Your task to perform on an android device: change alarm snooze length Image 0: 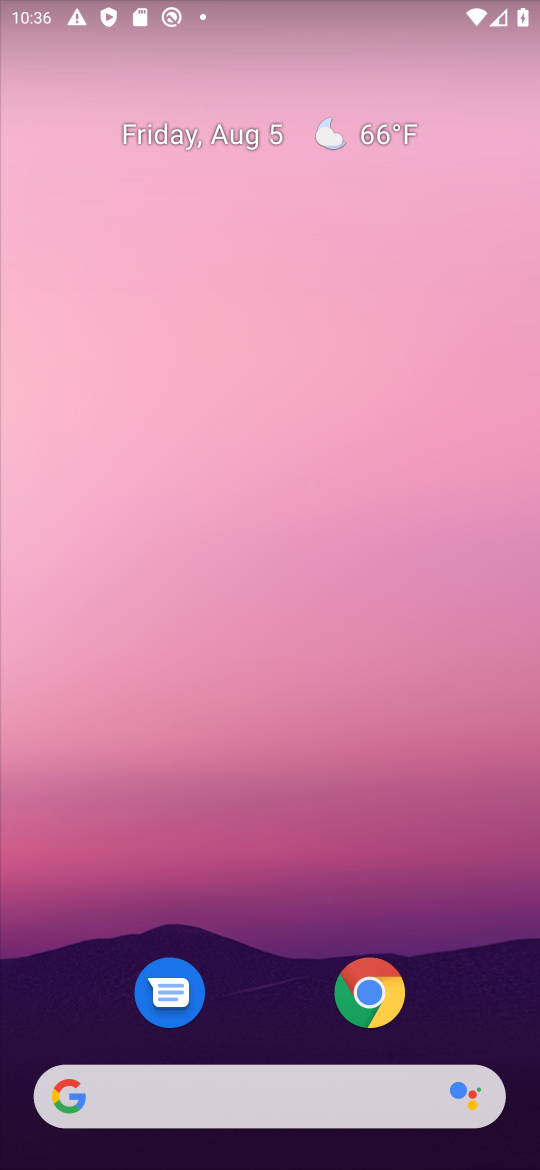
Step 0: drag from (280, 1021) to (354, 252)
Your task to perform on an android device: change alarm snooze length Image 1: 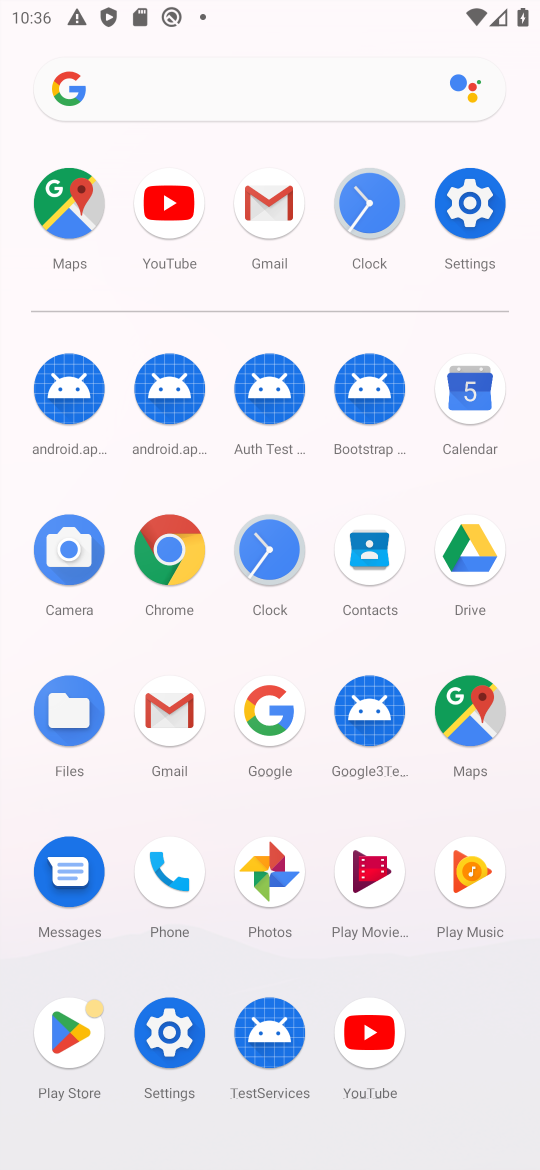
Step 1: click (476, 228)
Your task to perform on an android device: change alarm snooze length Image 2: 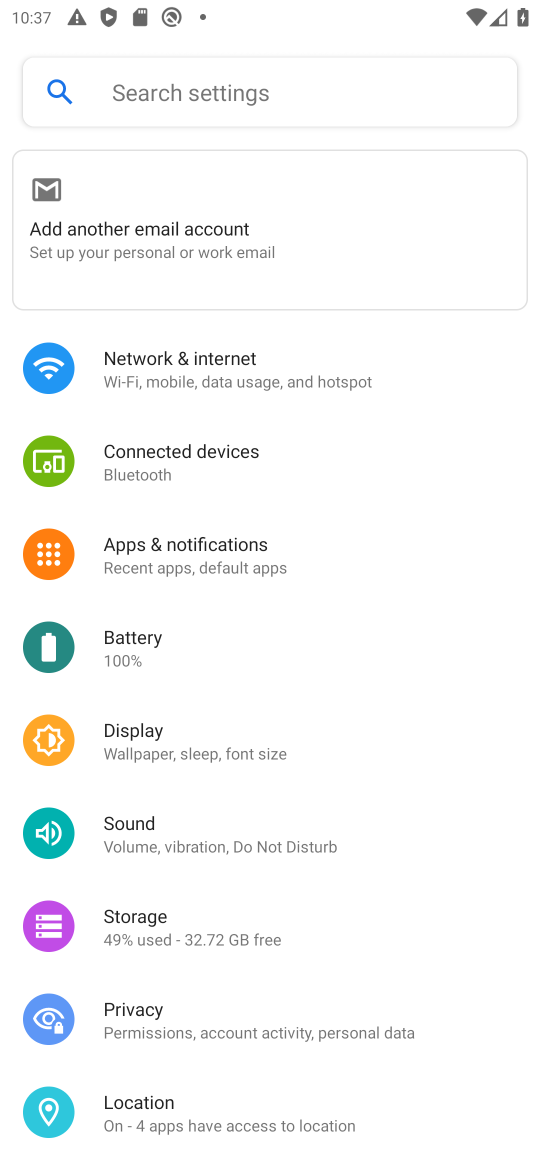
Step 2: press home button
Your task to perform on an android device: change alarm snooze length Image 3: 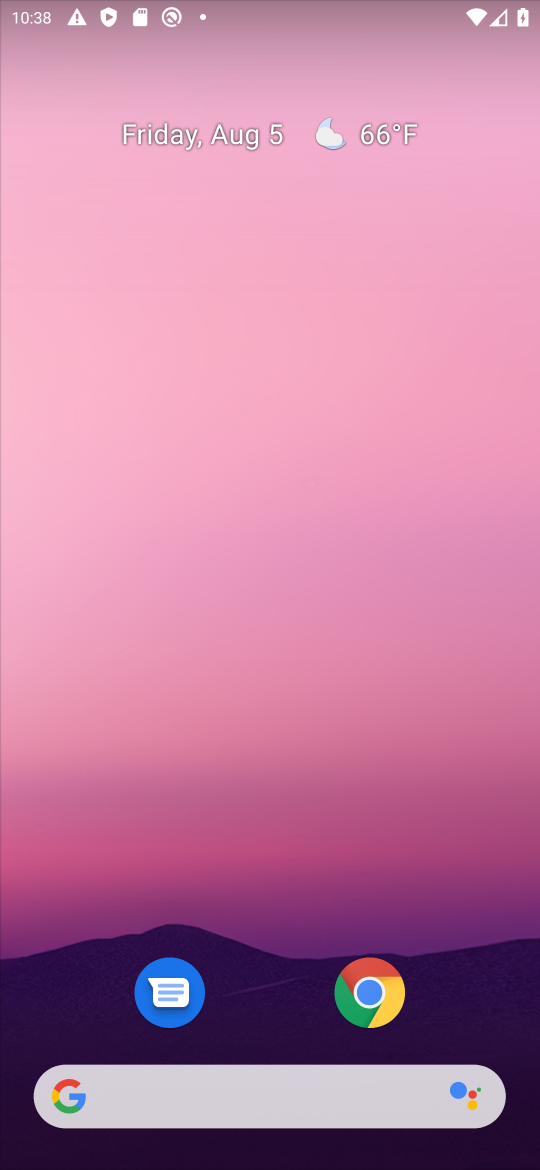
Step 3: drag from (266, 979) to (265, 263)
Your task to perform on an android device: change alarm snooze length Image 4: 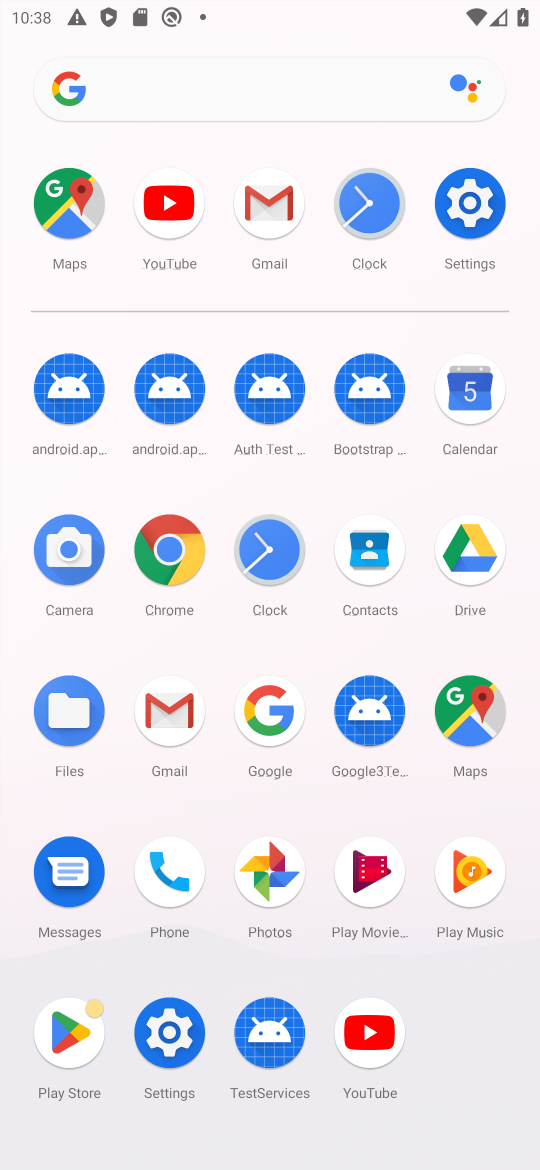
Step 4: click (378, 231)
Your task to perform on an android device: change alarm snooze length Image 5: 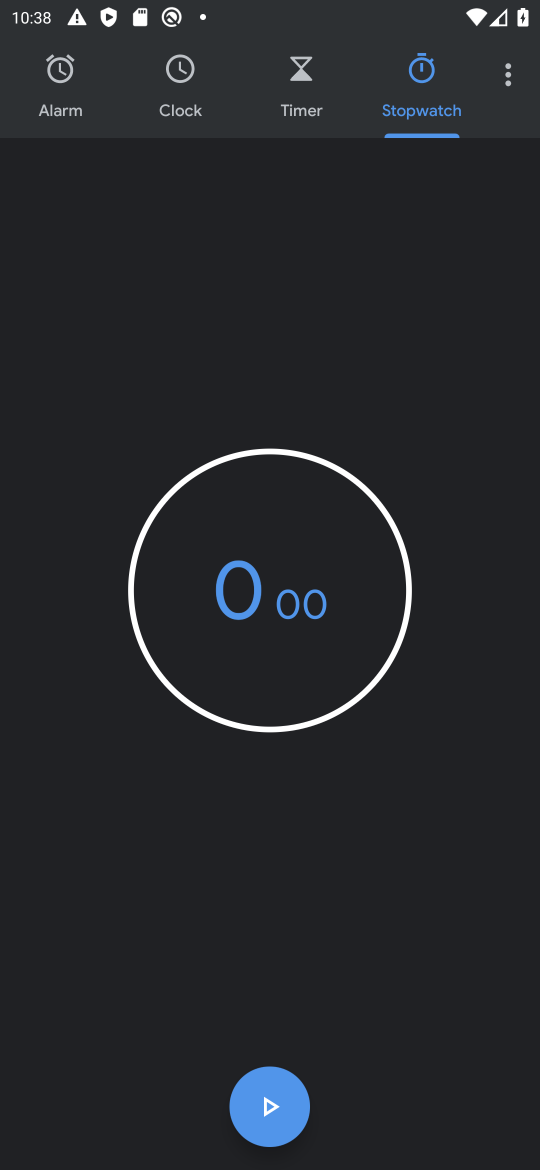
Step 5: click (520, 73)
Your task to perform on an android device: change alarm snooze length Image 6: 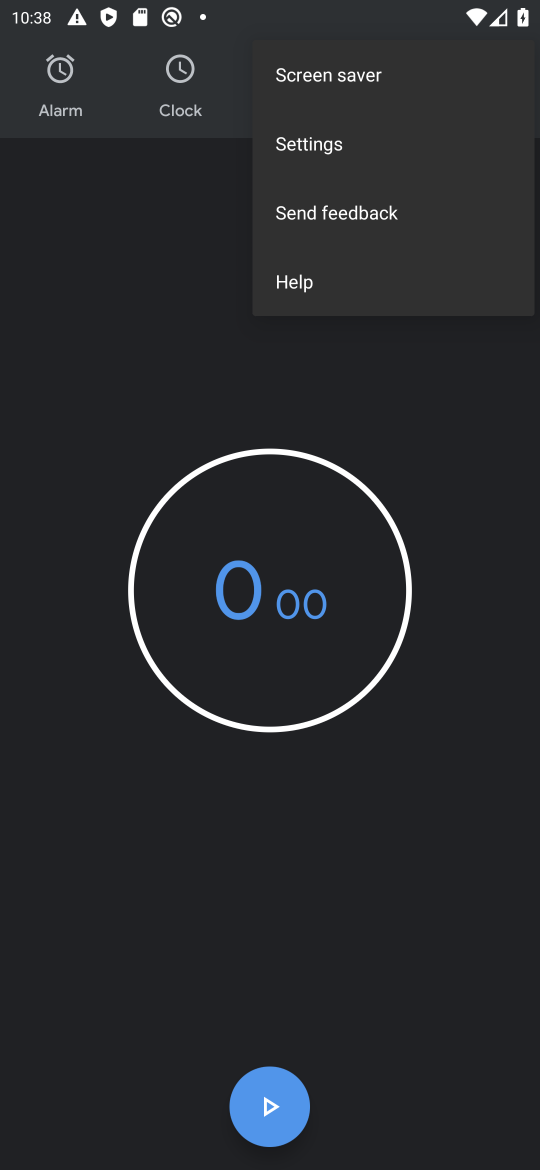
Step 6: click (351, 155)
Your task to perform on an android device: change alarm snooze length Image 7: 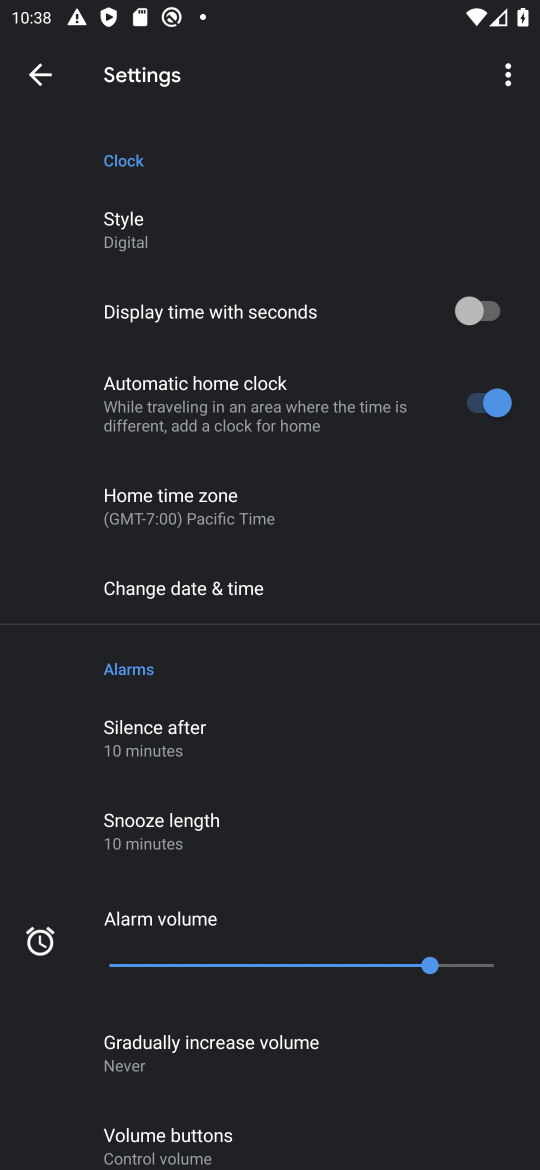
Step 7: click (201, 835)
Your task to perform on an android device: change alarm snooze length Image 8: 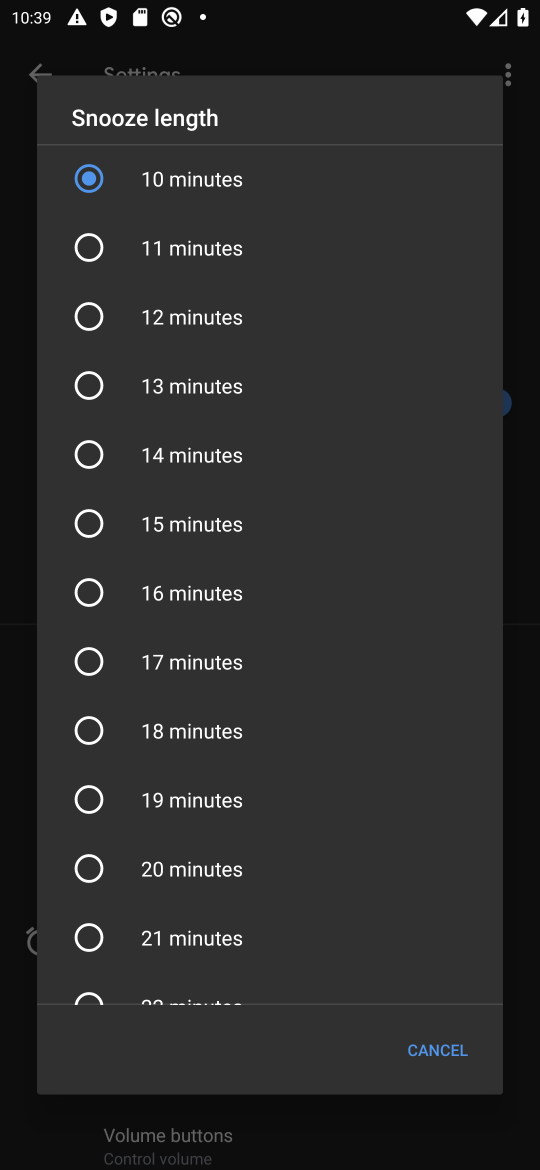
Step 8: click (100, 335)
Your task to perform on an android device: change alarm snooze length Image 9: 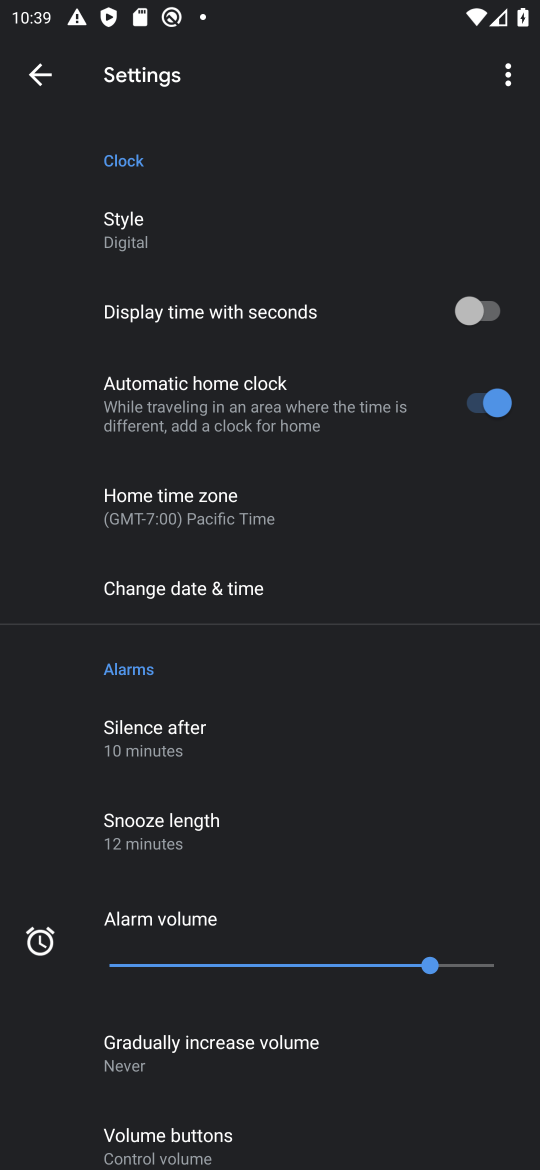
Step 9: task complete